Your task to perform on an android device: toggle priority inbox in the gmail app Image 0: 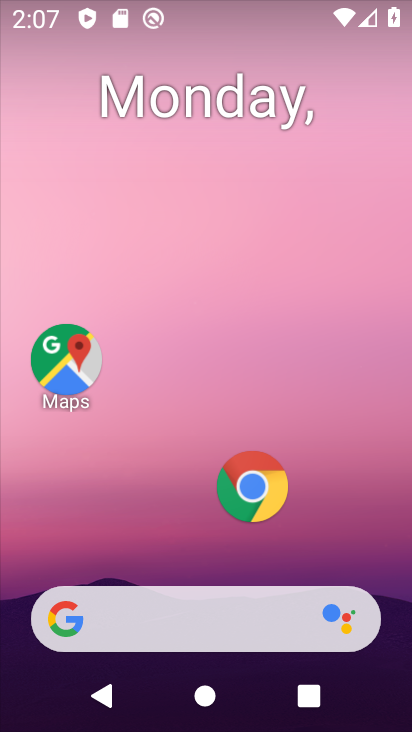
Step 0: drag from (320, 532) to (320, 24)
Your task to perform on an android device: toggle priority inbox in the gmail app Image 1: 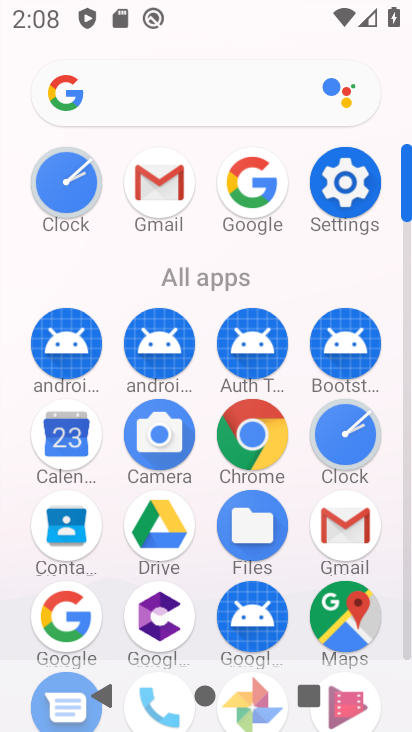
Step 1: click (350, 510)
Your task to perform on an android device: toggle priority inbox in the gmail app Image 2: 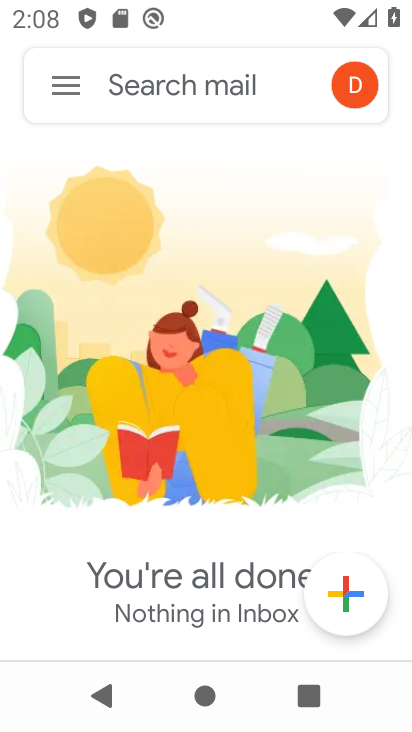
Step 2: click (72, 84)
Your task to perform on an android device: toggle priority inbox in the gmail app Image 3: 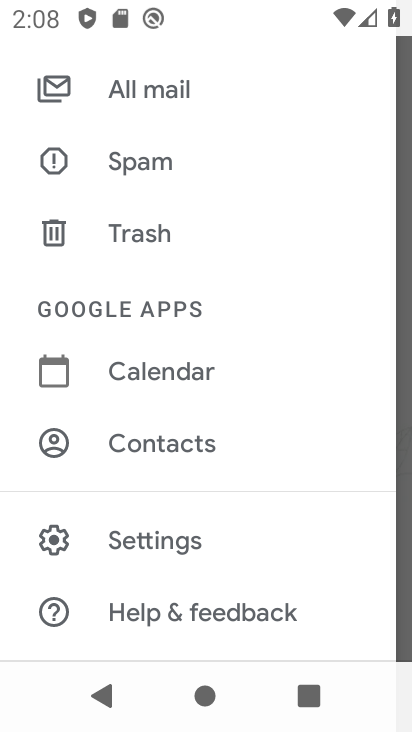
Step 3: click (129, 524)
Your task to perform on an android device: toggle priority inbox in the gmail app Image 4: 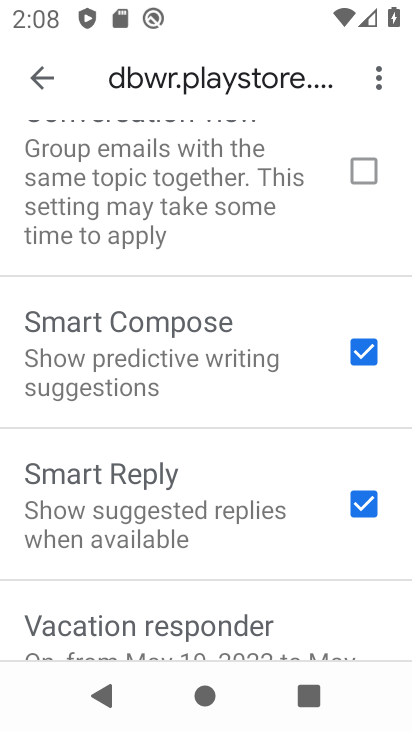
Step 4: drag from (178, 339) to (193, 623)
Your task to perform on an android device: toggle priority inbox in the gmail app Image 5: 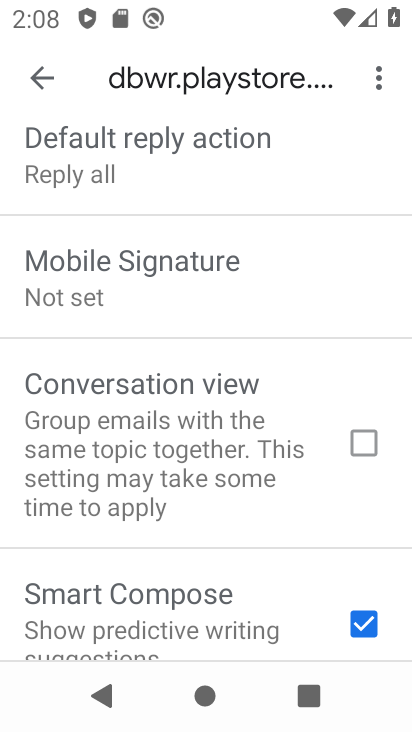
Step 5: drag from (204, 413) to (232, 651)
Your task to perform on an android device: toggle priority inbox in the gmail app Image 6: 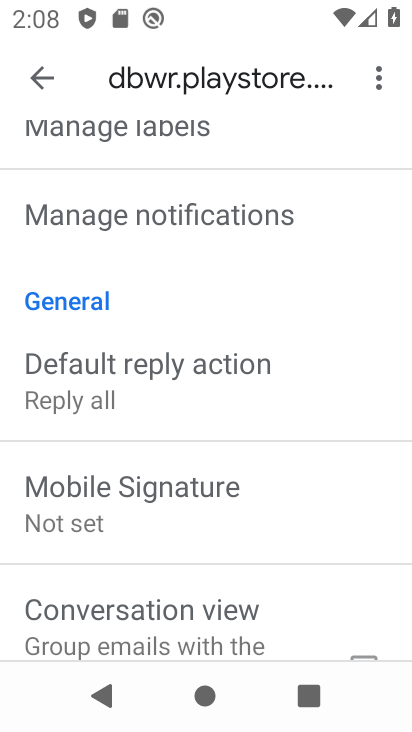
Step 6: drag from (218, 355) to (216, 687)
Your task to perform on an android device: toggle priority inbox in the gmail app Image 7: 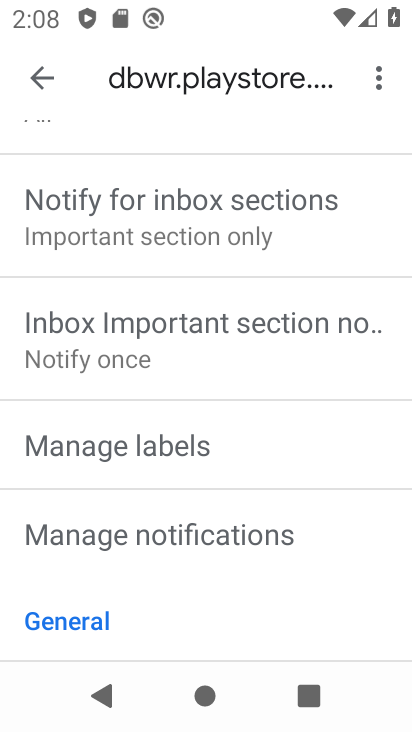
Step 7: drag from (227, 257) to (237, 532)
Your task to perform on an android device: toggle priority inbox in the gmail app Image 8: 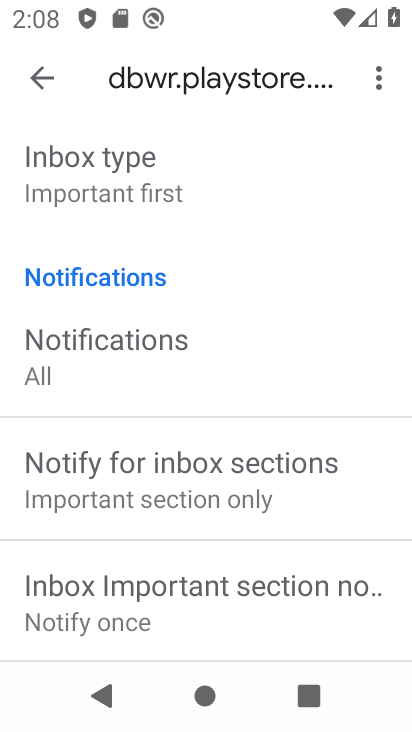
Step 8: drag from (262, 409) to (251, 470)
Your task to perform on an android device: toggle priority inbox in the gmail app Image 9: 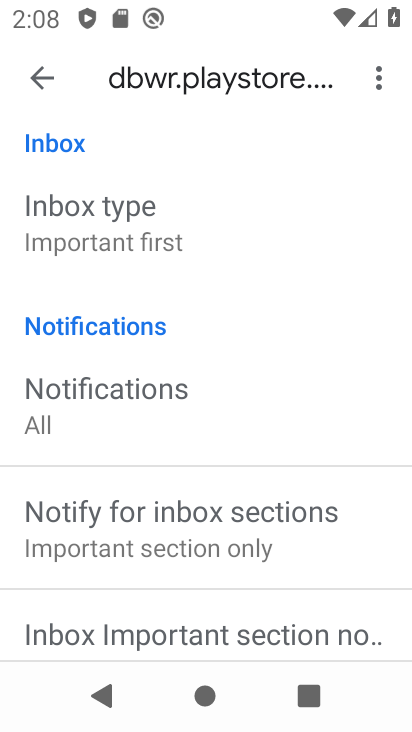
Step 9: click (132, 220)
Your task to perform on an android device: toggle priority inbox in the gmail app Image 10: 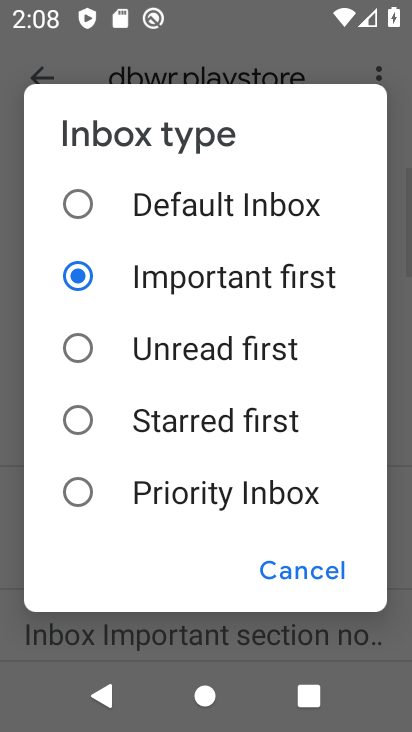
Step 10: click (175, 496)
Your task to perform on an android device: toggle priority inbox in the gmail app Image 11: 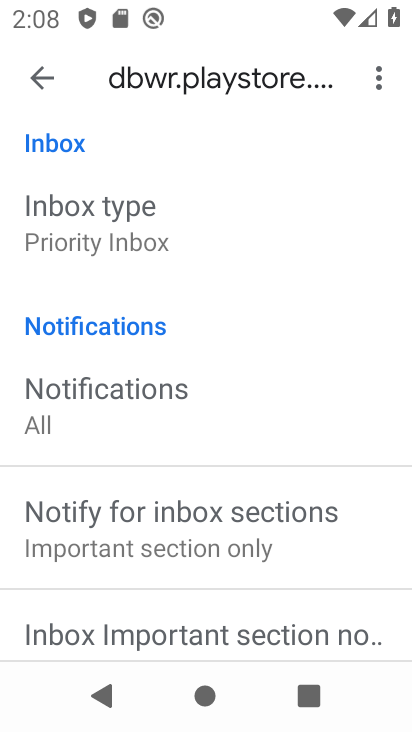
Step 11: task complete